Your task to perform on an android device: turn on bluetooth scan Image 0: 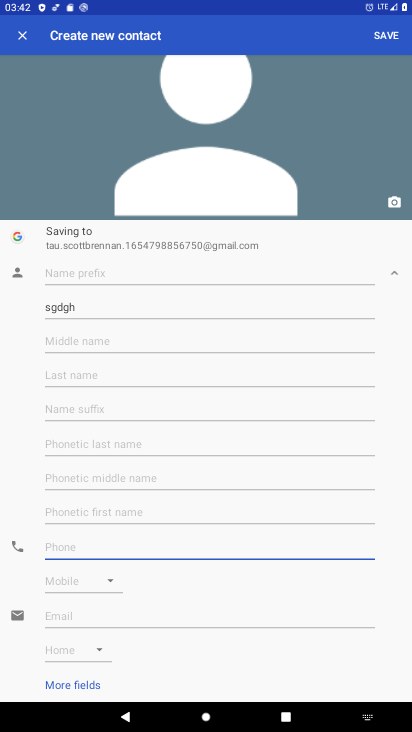
Step 0: press home button
Your task to perform on an android device: turn on bluetooth scan Image 1: 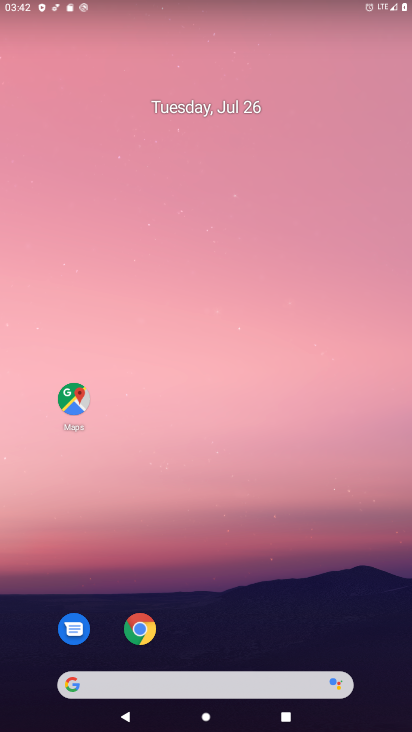
Step 1: drag from (204, 618) to (216, 150)
Your task to perform on an android device: turn on bluetooth scan Image 2: 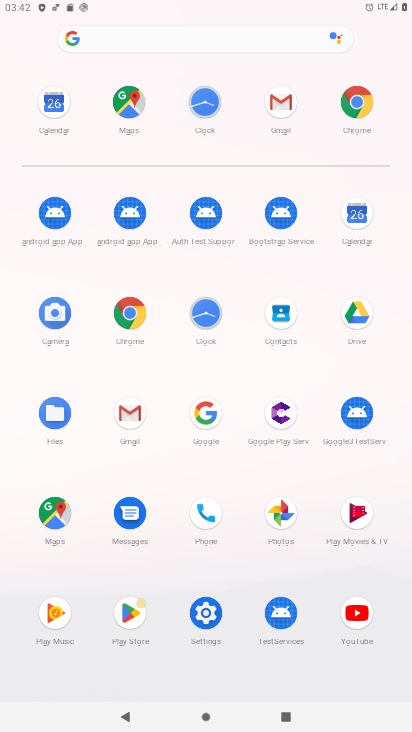
Step 2: click (210, 613)
Your task to perform on an android device: turn on bluetooth scan Image 3: 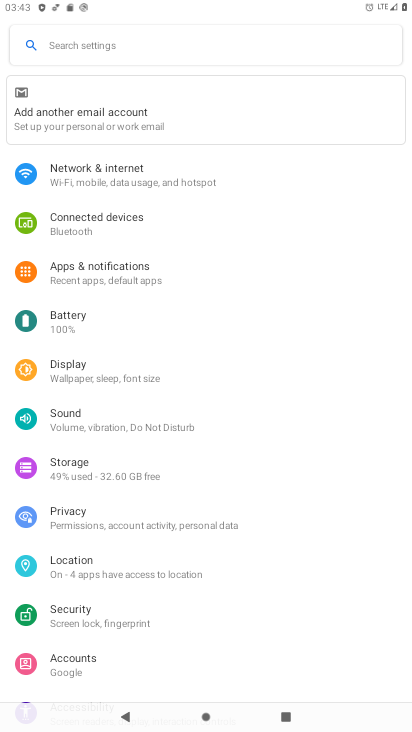
Step 3: click (91, 566)
Your task to perform on an android device: turn on bluetooth scan Image 4: 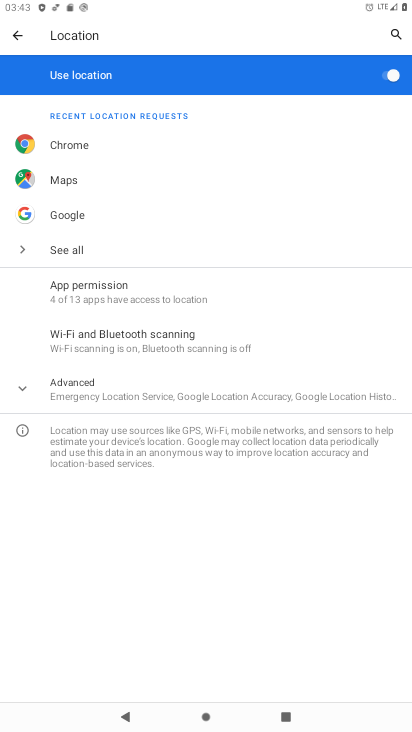
Step 4: click (158, 339)
Your task to perform on an android device: turn on bluetooth scan Image 5: 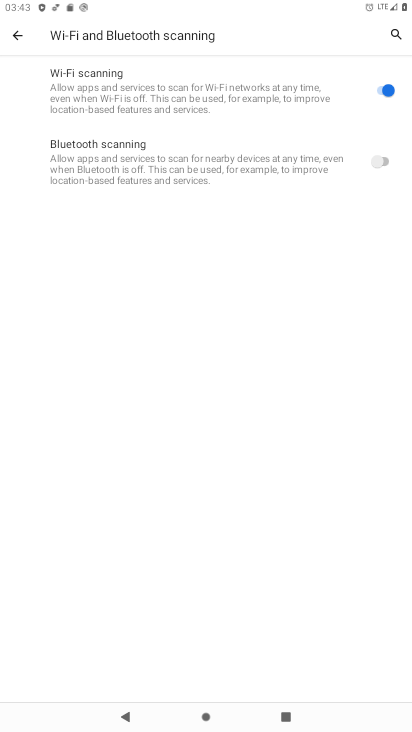
Step 5: click (273, 165)
Your task to perform on an android device: turn on bluetooth scan Image 6: 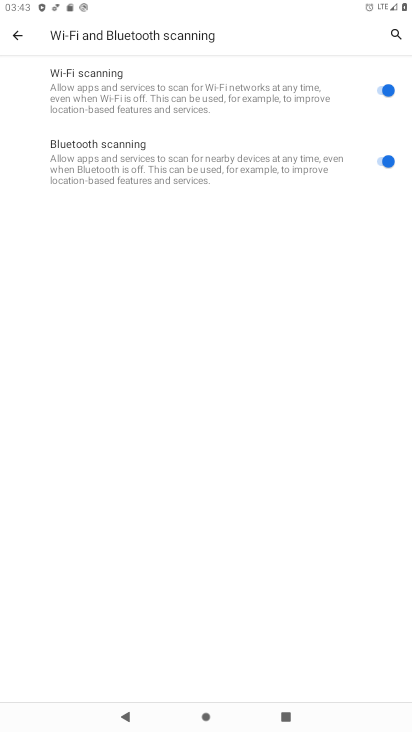
Step 6: task complete